Your task to perform on an android device: Open calendar and show me the third week of next month Image 0: 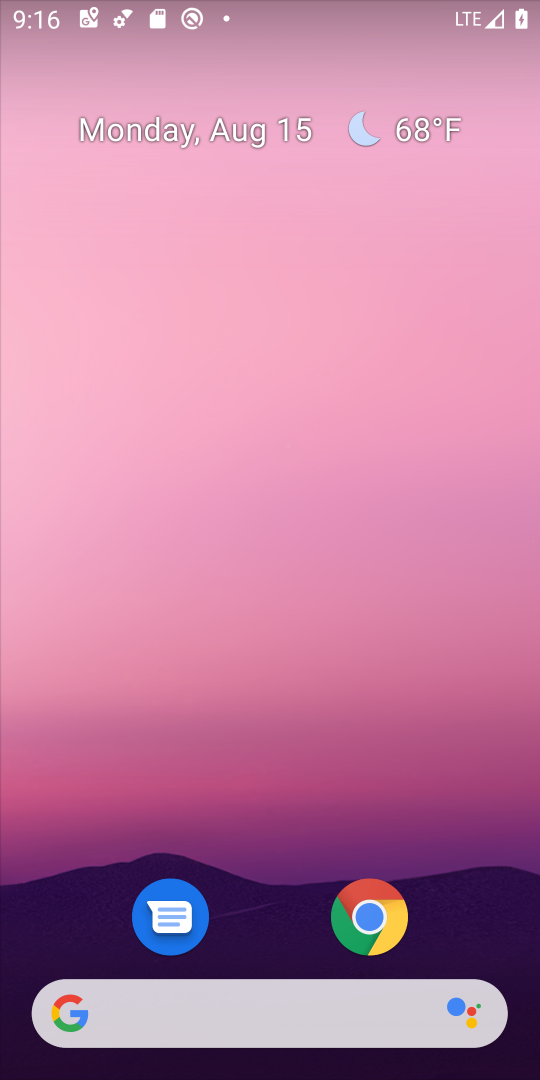
Step 0: drag from (284, 801) to (298, 0)
Your task to perform on an android device: Open calendar and show me the third week of next month Image 1: 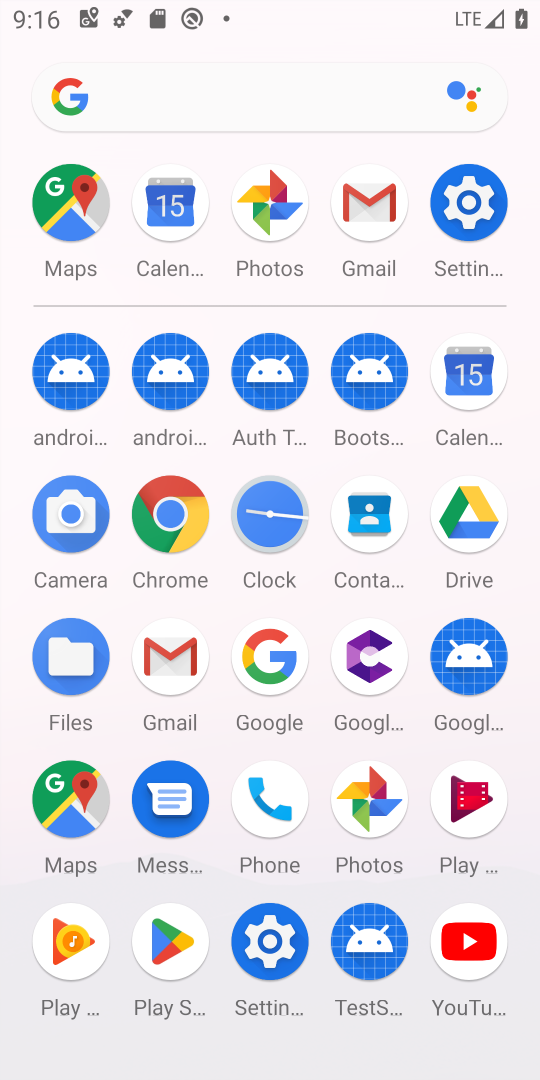
Step 1: click (471, 383)
Your task to perform on an android device: Open calendar and show me the third week of next month Image 2: 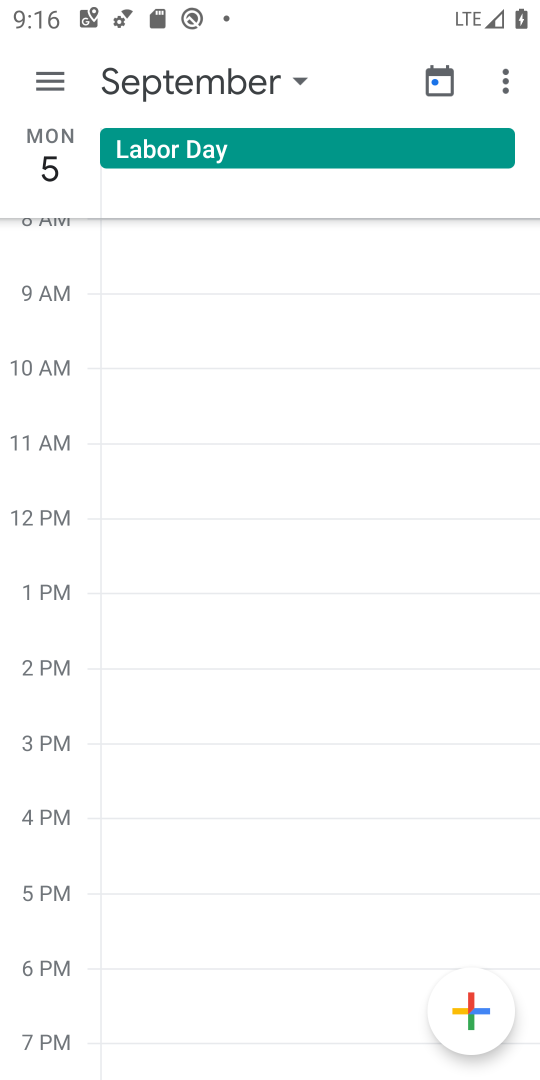
Step 2: click (49, 79)
Your task to perform on an android device: Open calendar and show me the third week of next month Image 3: 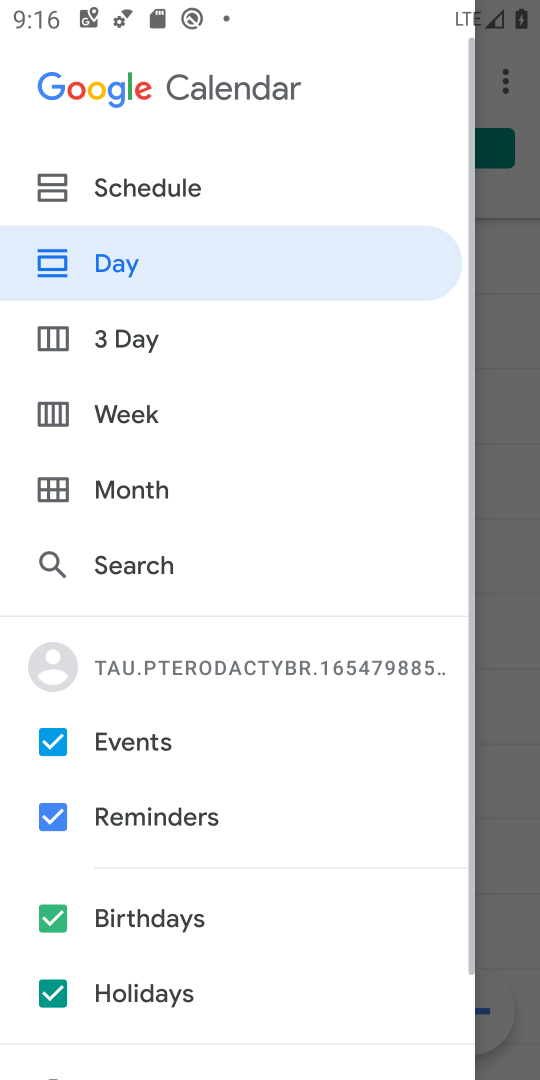
Step 3: click (97, 482)
Your task to perform on an android device: Open calendar and show me the third week of next month Image 4: 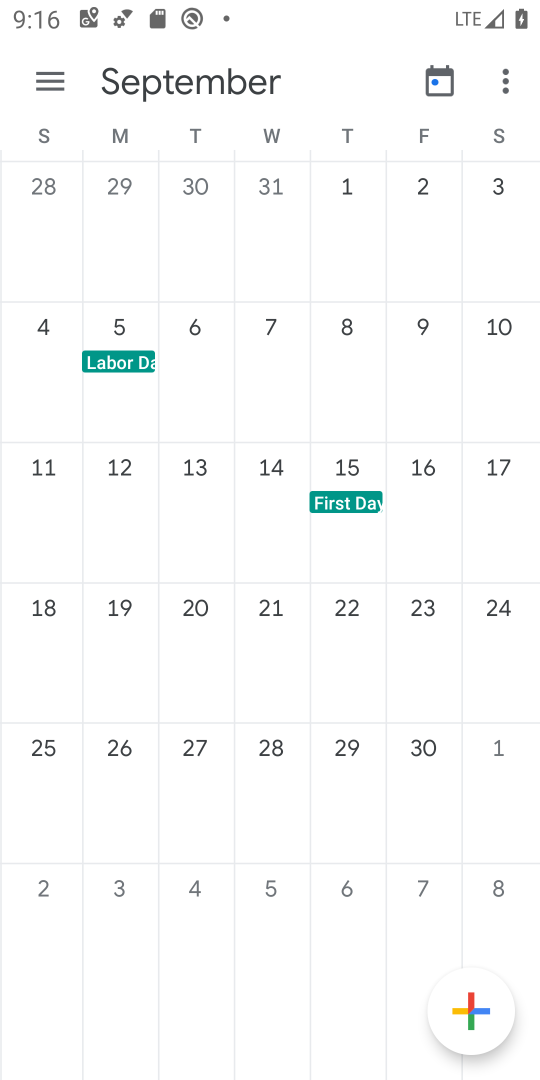
Step 4: drag from (479, 539) to (1, 610)
Your task to perform on an android device: Open calendar and show me the third week of next month Image 5: 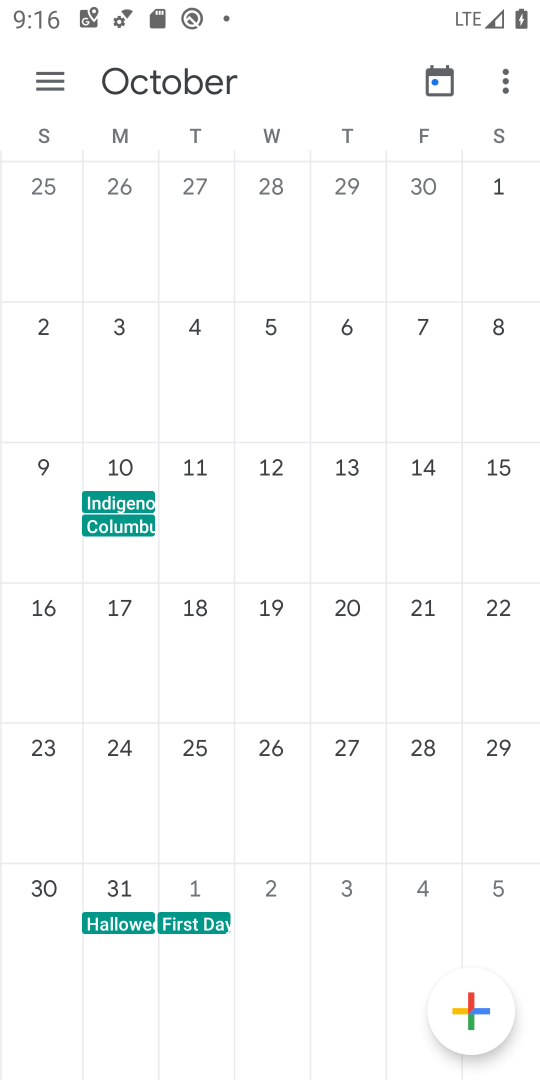
Step 5: click (47, 608)
Your task to perform on an android device: Open calendar and show me the third week of next month Image 6: 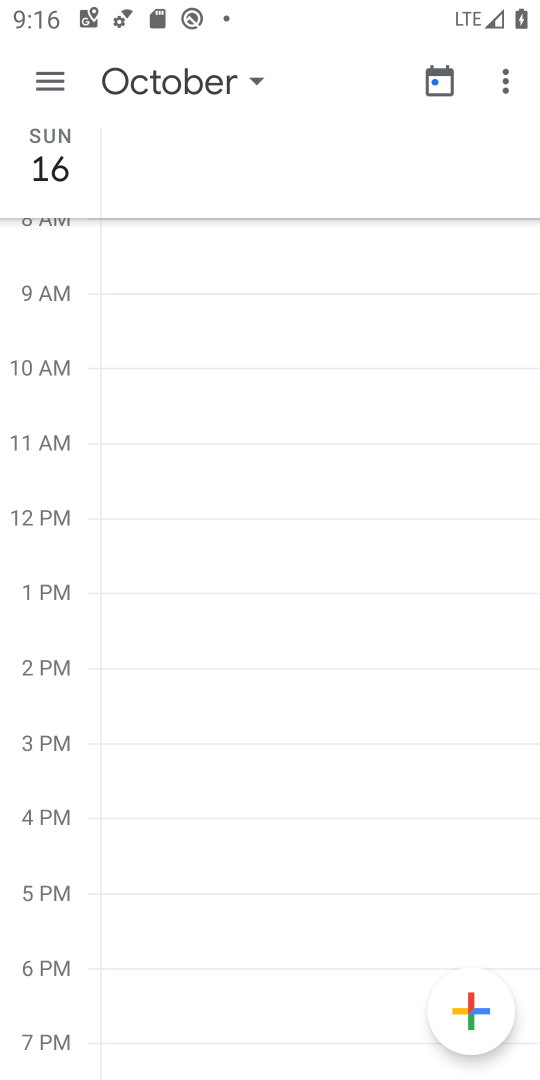
Step 6: click (53, 79)
Your task to perform on an android device: Open calendar and show me the third week of next month Image 7: 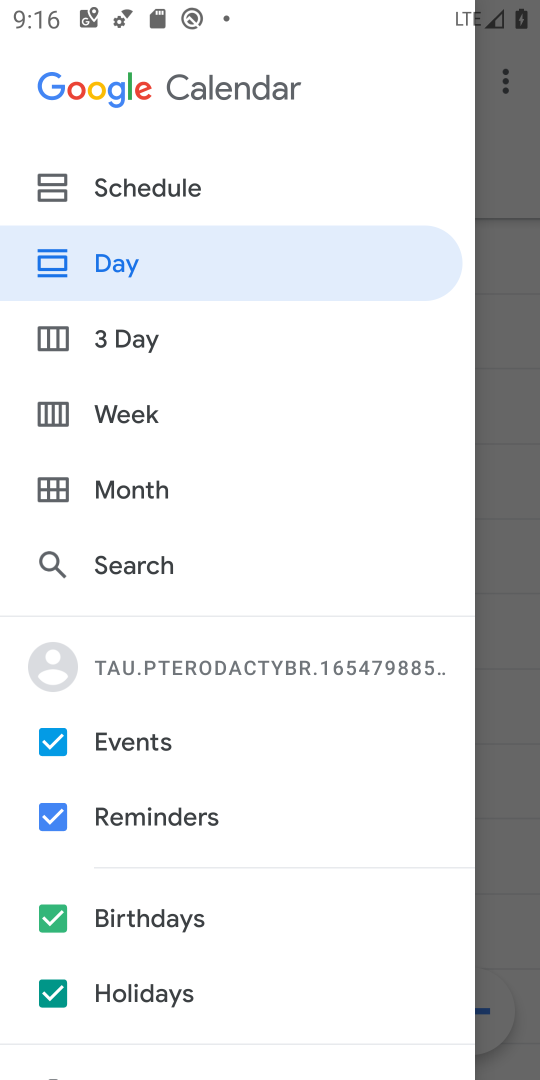
Step 7: click (99, 409)
Your task to perform on an android device: Open calendar and show me the third week of next month Image 8: 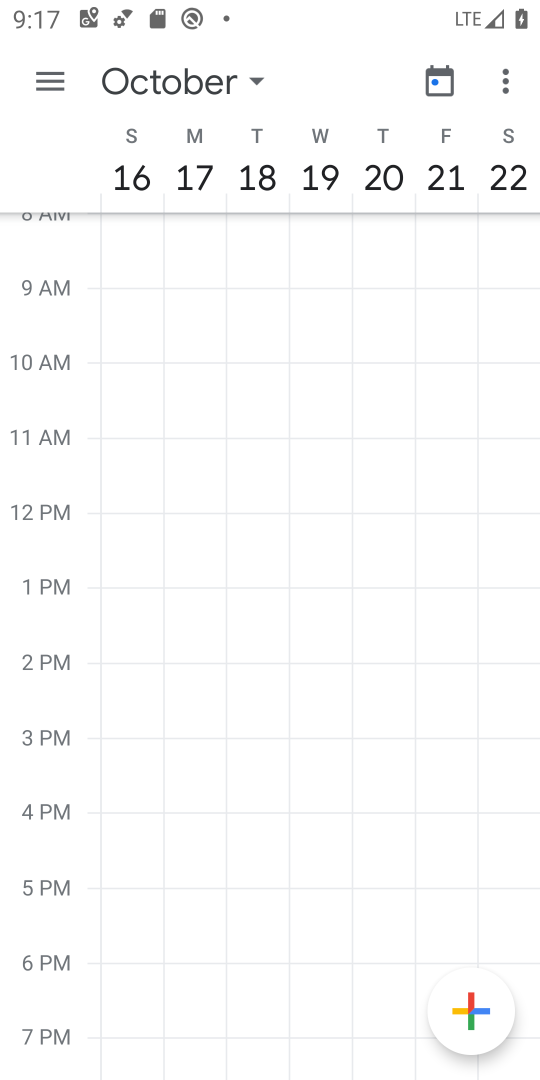
Step 8: task complete